Your task to perform on an android device: Open Android settings Image 0: 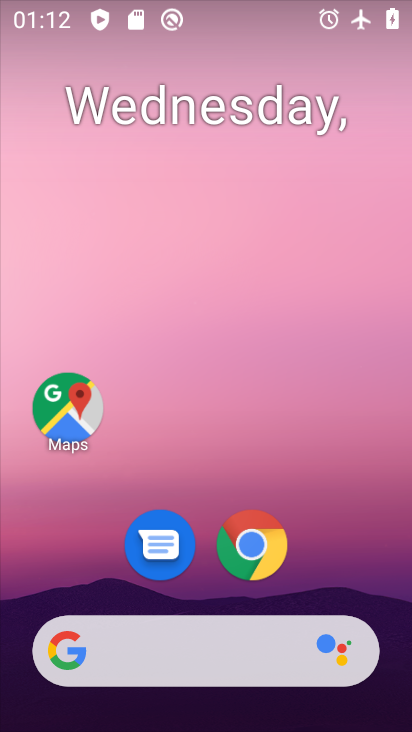
Step 0: drag from (326, 496) to (300, 119)
Your task to perform on an android device: Open Android settings Image 1: 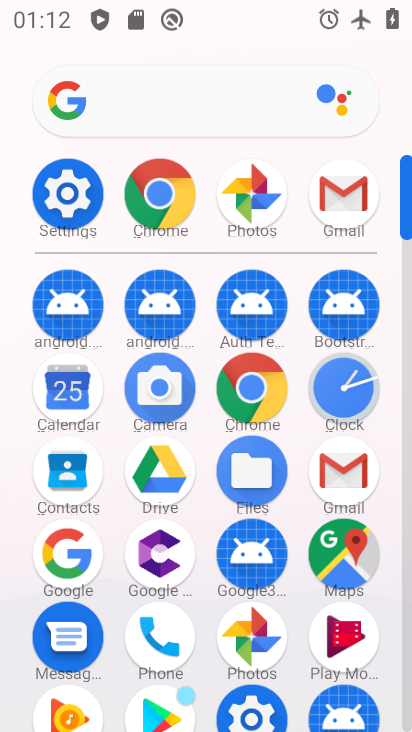
Step 1: click (65, 199)
Your task to perform on an android device: Open Android settings Image 2: 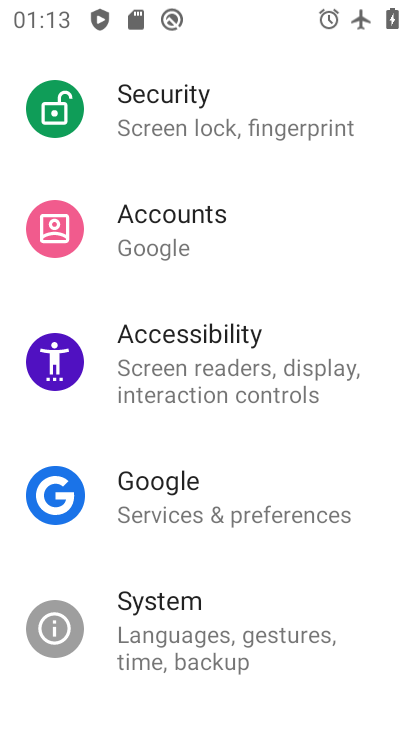
Step 2: task complete